Your task to perform on an android device: Open calendar and show me the fourth week of next month Image 0: 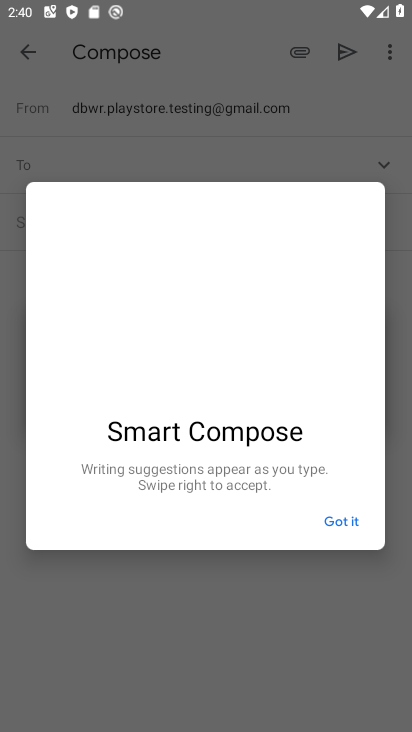
Step 0: press home button
Your task to perform on an android device: Open calendar and show me the fourth week of next month Image 1: 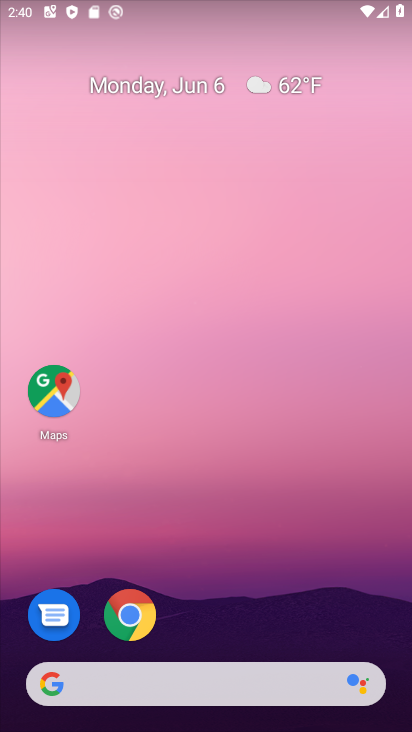
Step 1: drag from (173, 675) to (285, 33)
Your task to perform on an android device: Open calendar and show me the fourth week of next month Image 2: 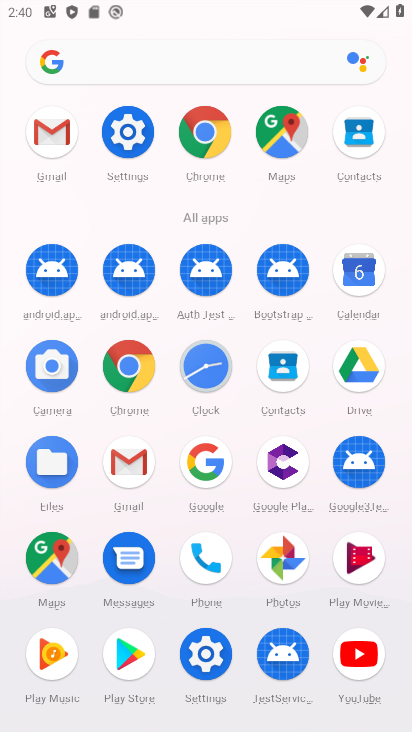
Step 2: click (357, 255)
Your task to perform on an android device: Open calendar and show me the fourth week of next month Image 3: 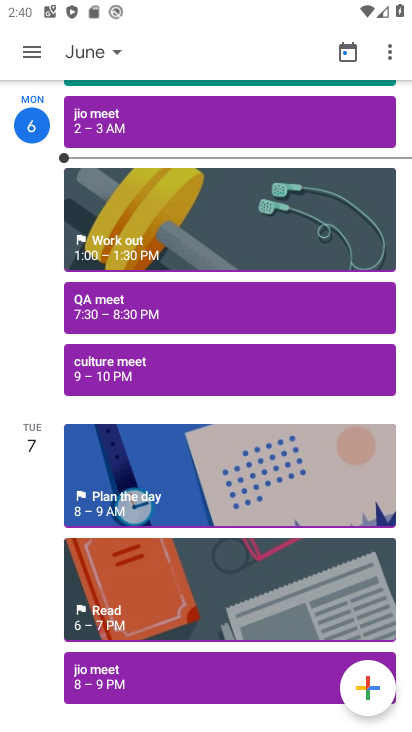
Step 3: click (119, 48)
Your task to perform on an android device: Open calendar and show me the fourth week of next month Image 4: 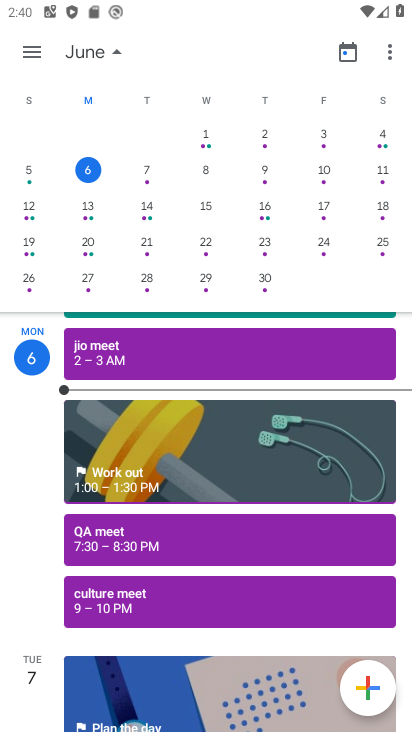
Step 4: drag from (341, 216) to (23, 264)
Your task to perform on an android device: Open calendar and show me the fourth week of next month Image 5: 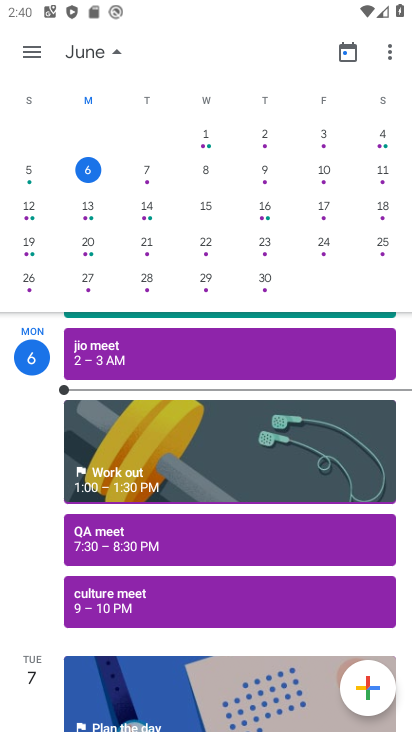
Step 5: drag from (331, 191) to (39, 228)
Your task to perform on an android device: Open calendar and show me the fourth week of next month Image 6: 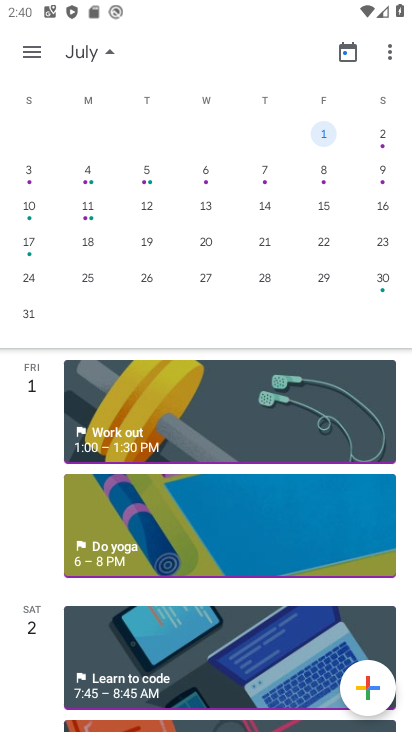
Step 6: click (262, 243)
Your task to perform on an android device: Open calendar and show me the fourth week of next month Image 7: 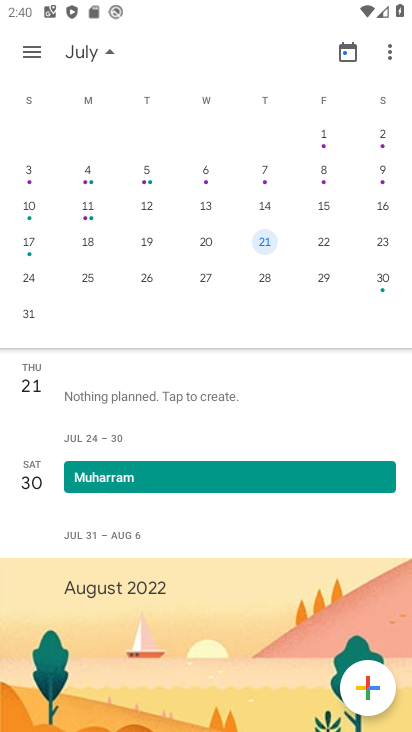
Step 7: task complete